Your task to perform on an android device: What's on my calendar tomorrow? Image 0: 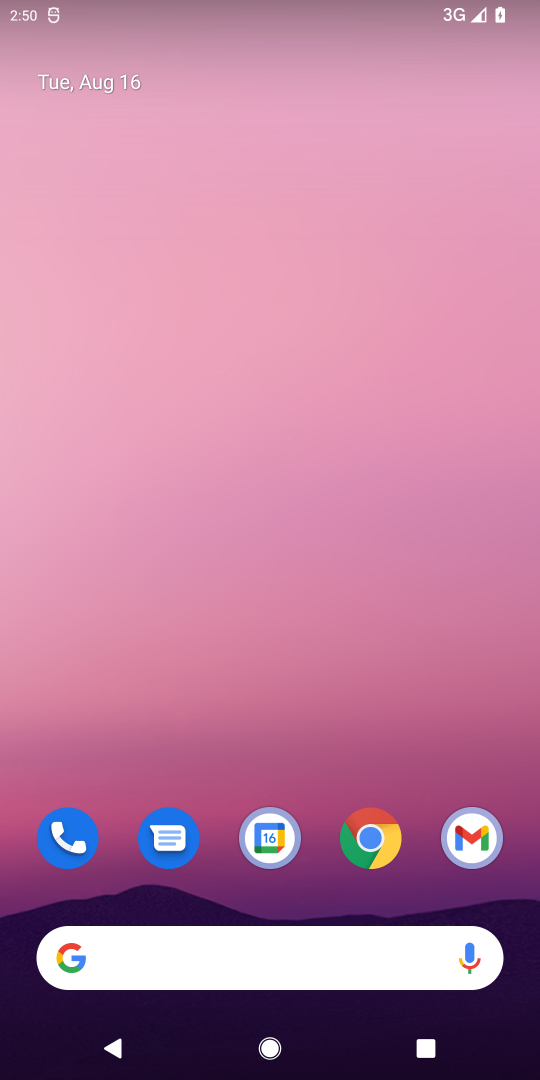
Step 0: click (264, 848)
Your task to perform on an android device: What's on my calendar tomorrow? Image 1: 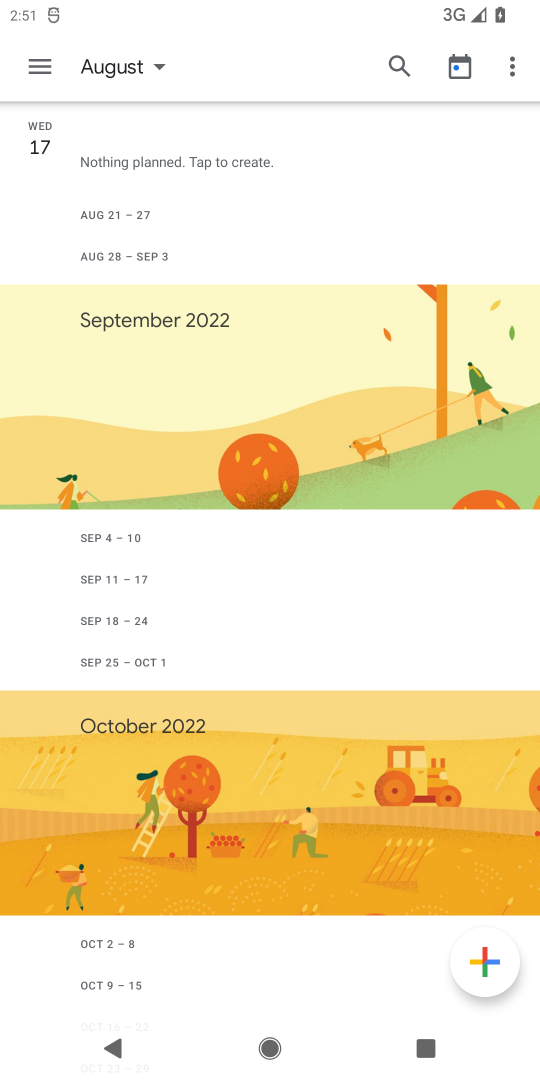
Step 1: task complete